Your task to perform on an android device: all mails in gmail Image 0: 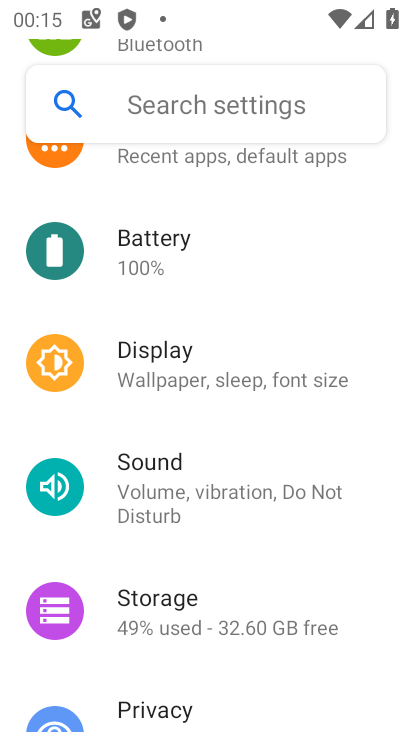
Step 0: press home button
Your task to perform on an android device: all mails in gmail Image 1: 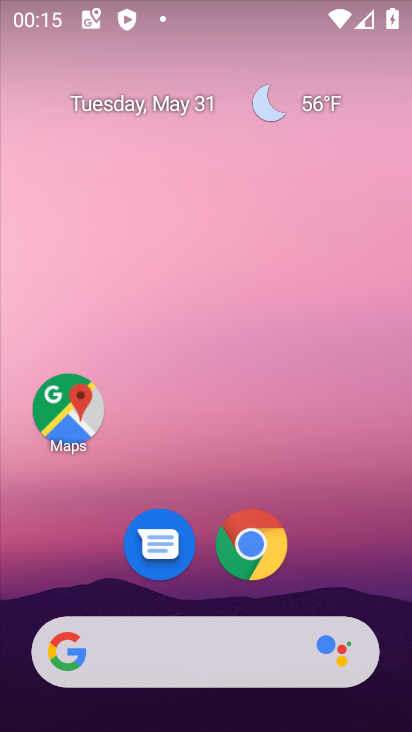
Step 1: drag from (323, 549) to (253, 73)
Your task to perform on an android device: all mails in gmail Image 2: 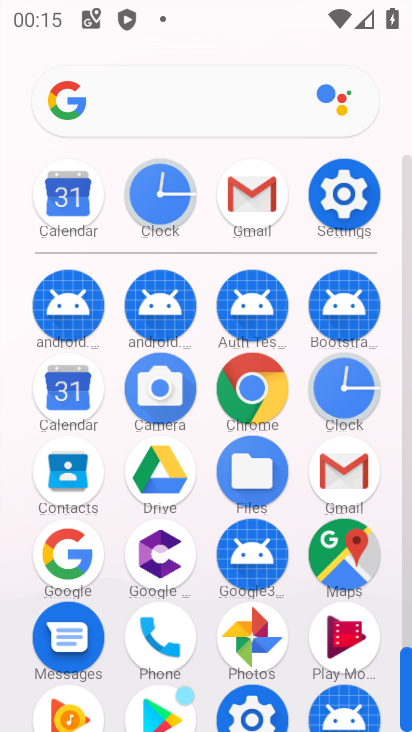
Step 2: click (334, 462)
Your task to perform on an android device: all mails in gmail Image 3: 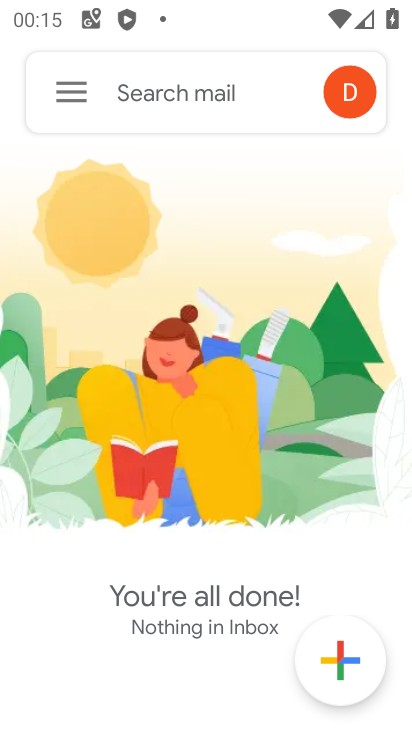
Step 3: click (62, 76)
Your task to perform on an android device: all mails in gmail Image 4: 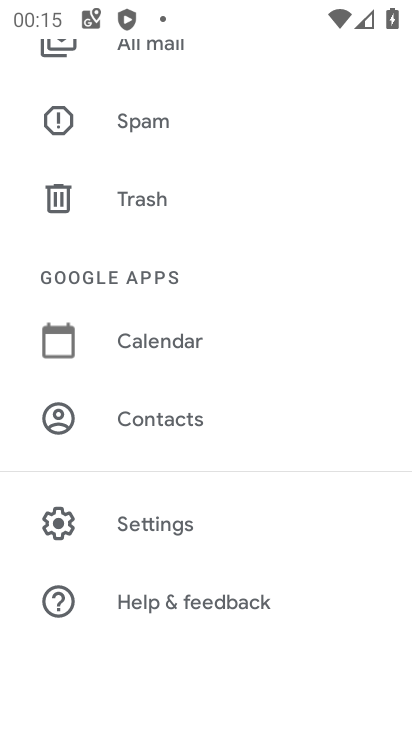
Step 4: click (174, 51)
Your task to perform on an android device: all mails in gmail Image 5: 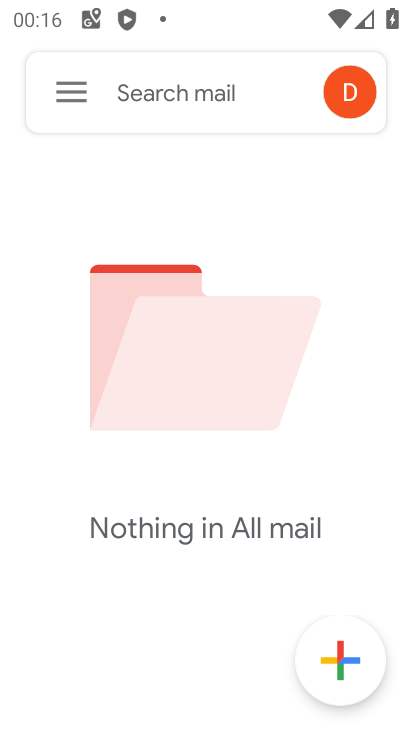
Step 5: task complete